Your task to perform on an android device: Go to calendar. Show me events next week Image 0: 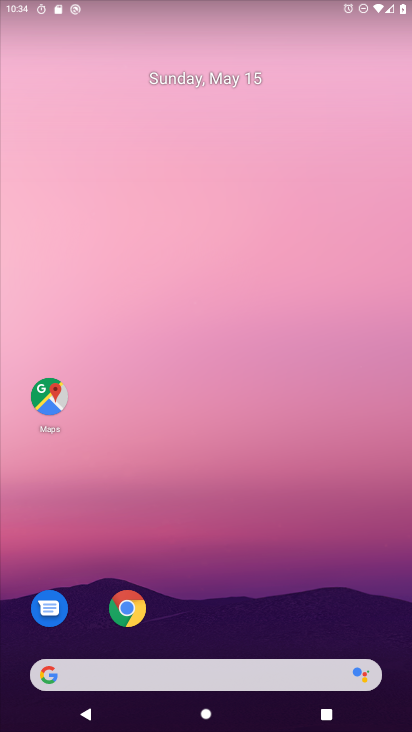
Step 0: drag from (330, 592) to (329, 181)
Your task to perform on an android device: Go to calendar. Show me events next week Image 1: 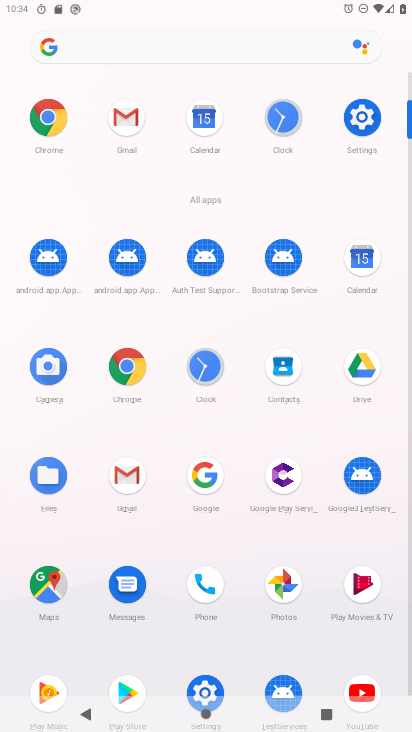
Step 1: click (365, 262)
Your task to perform on an android device: Go to calendar. Show me events next week Image 2: 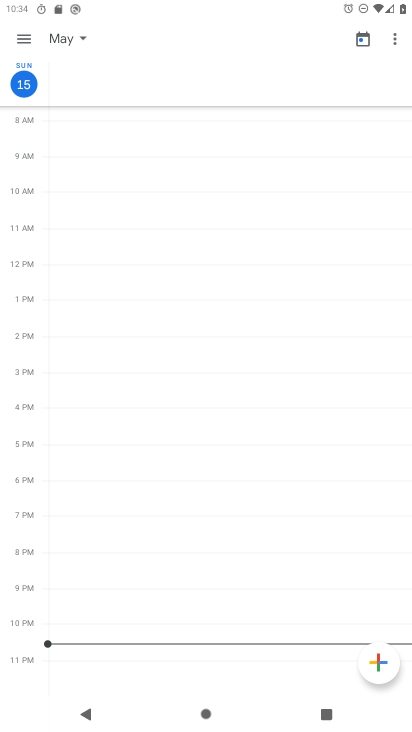
Step 2: click (65, 41)
Your task to perform on an android device: Go to calendar. Show me events next week Image 3: 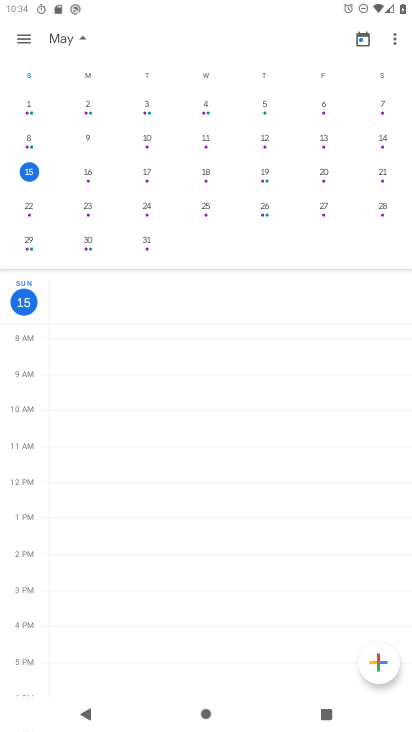
Step 3: click (29, 206)
Your task to perform on an android device: Go to calendar. Show me events next week Image 4: 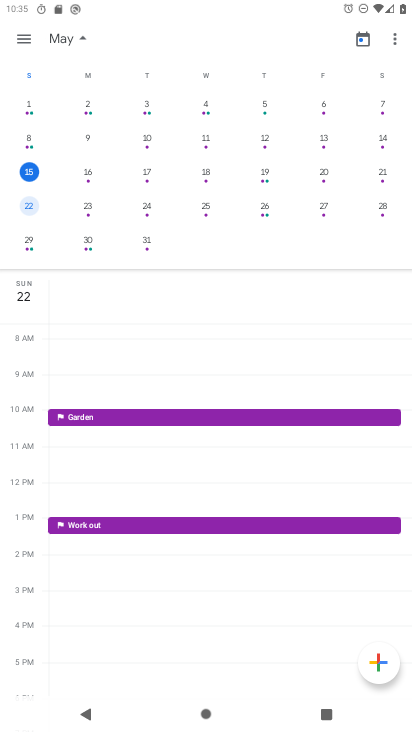
Step 4: task complete